Your task to perform on an android device: What's the weather today? Image 0: 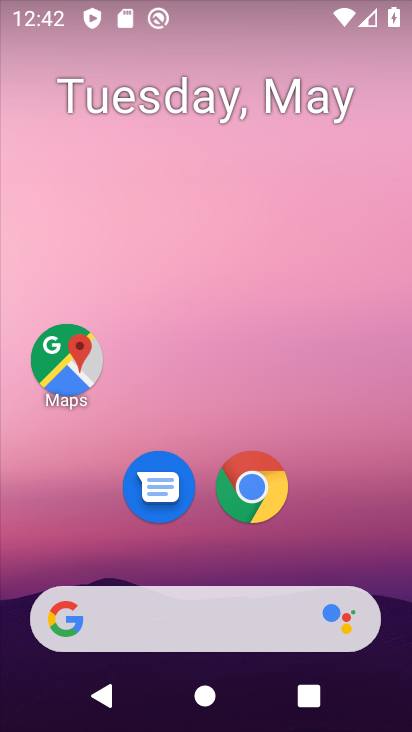
Step 0: drag from (221, 589) to (232, 183)
Your task to perform on an android device: What's the weather today? Image 1: 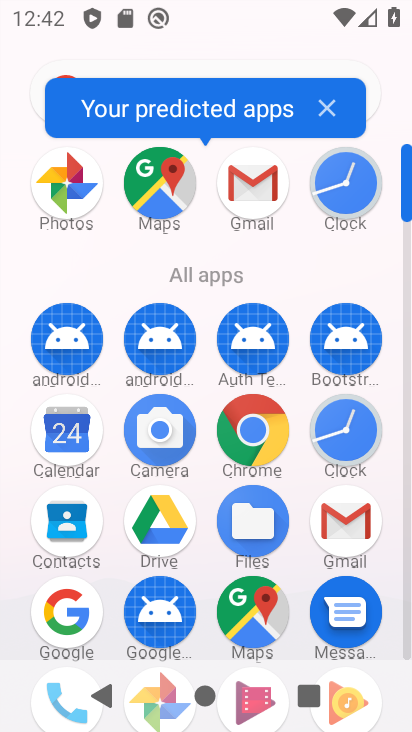
Step 1: click (64, 614)
Your task to perform on an android device: What's the weather today? Image 2: 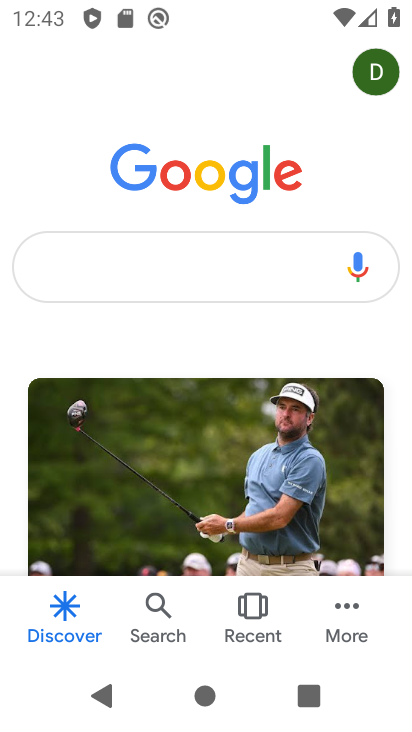
Step 2: click (211, 271)
Your task to perform on an android device: What's the weather today? Image 3: 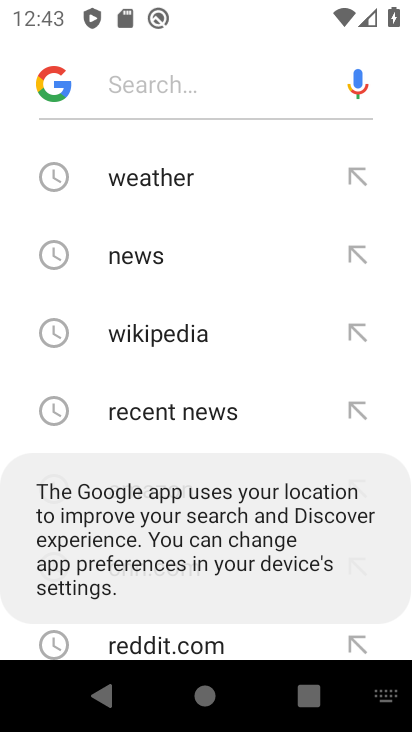
Step 3: click (186, 177)
Your task to perform on an android device: What's the weather today? Image 4: 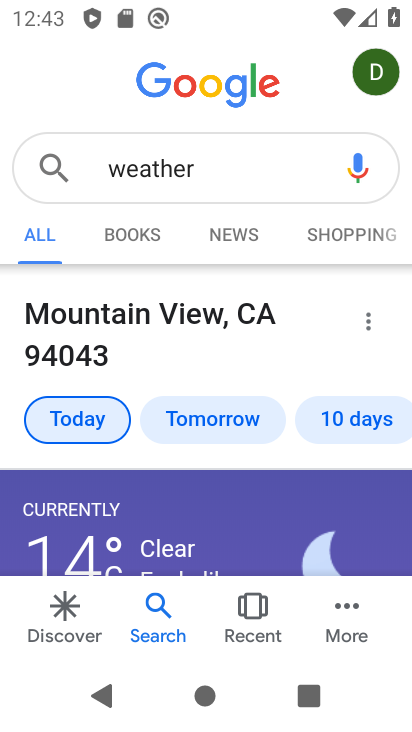
Step 4: task complete